Your task to perform on an android device: turn off notifications in google photos Image 0: 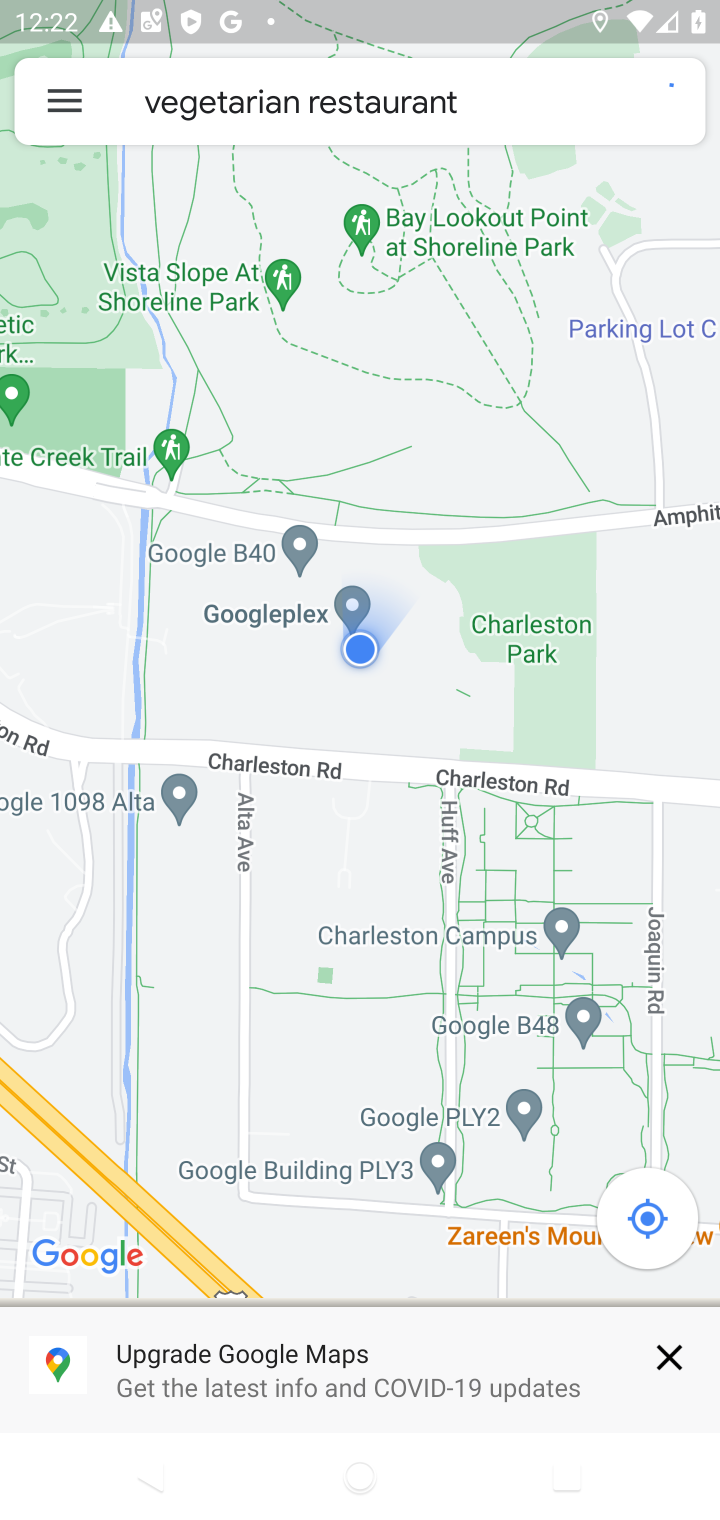
Step 0: press back button
Your task to perform on an android device: turn off notifications in google photos Image 1: 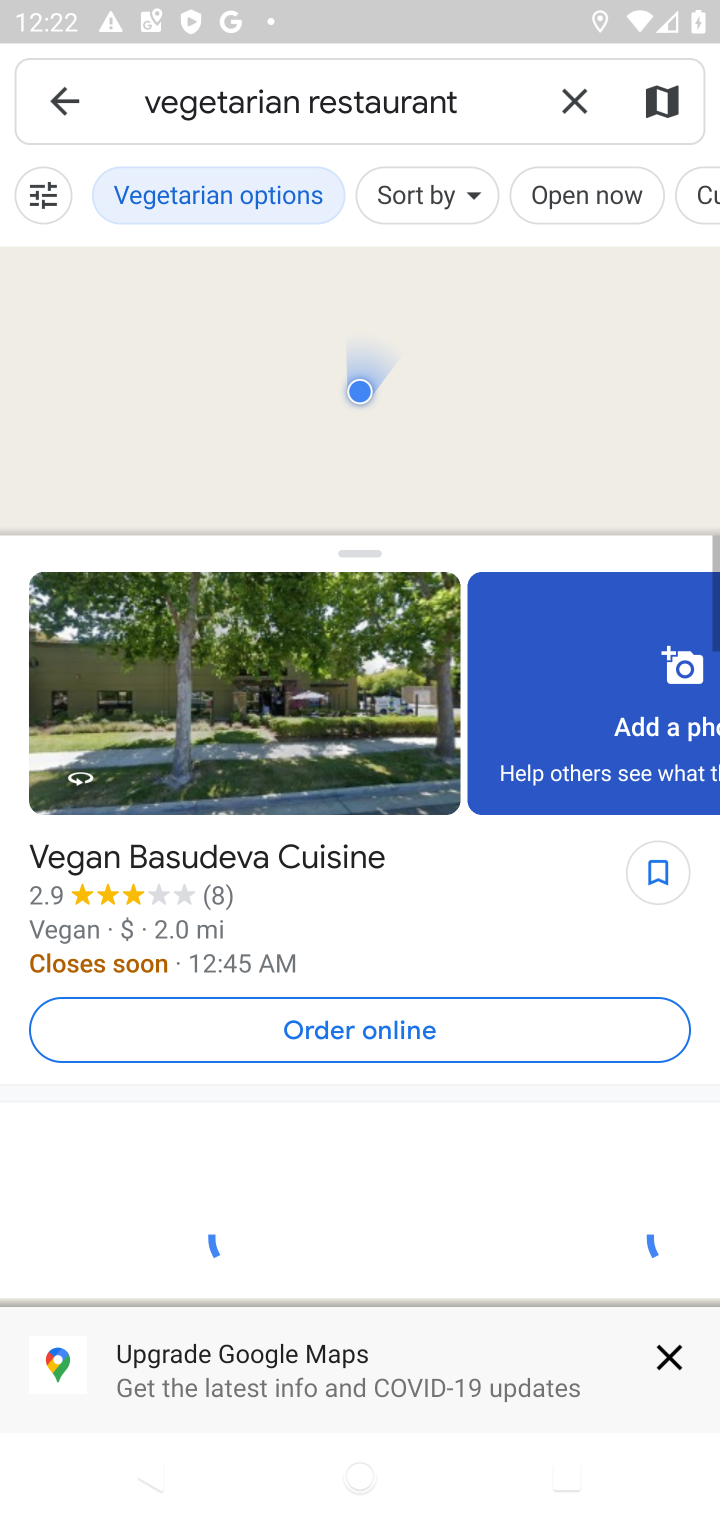
Step 1: click (48, 107)
Your task to perform on an android device: turn off notifications in google photos Image 2: 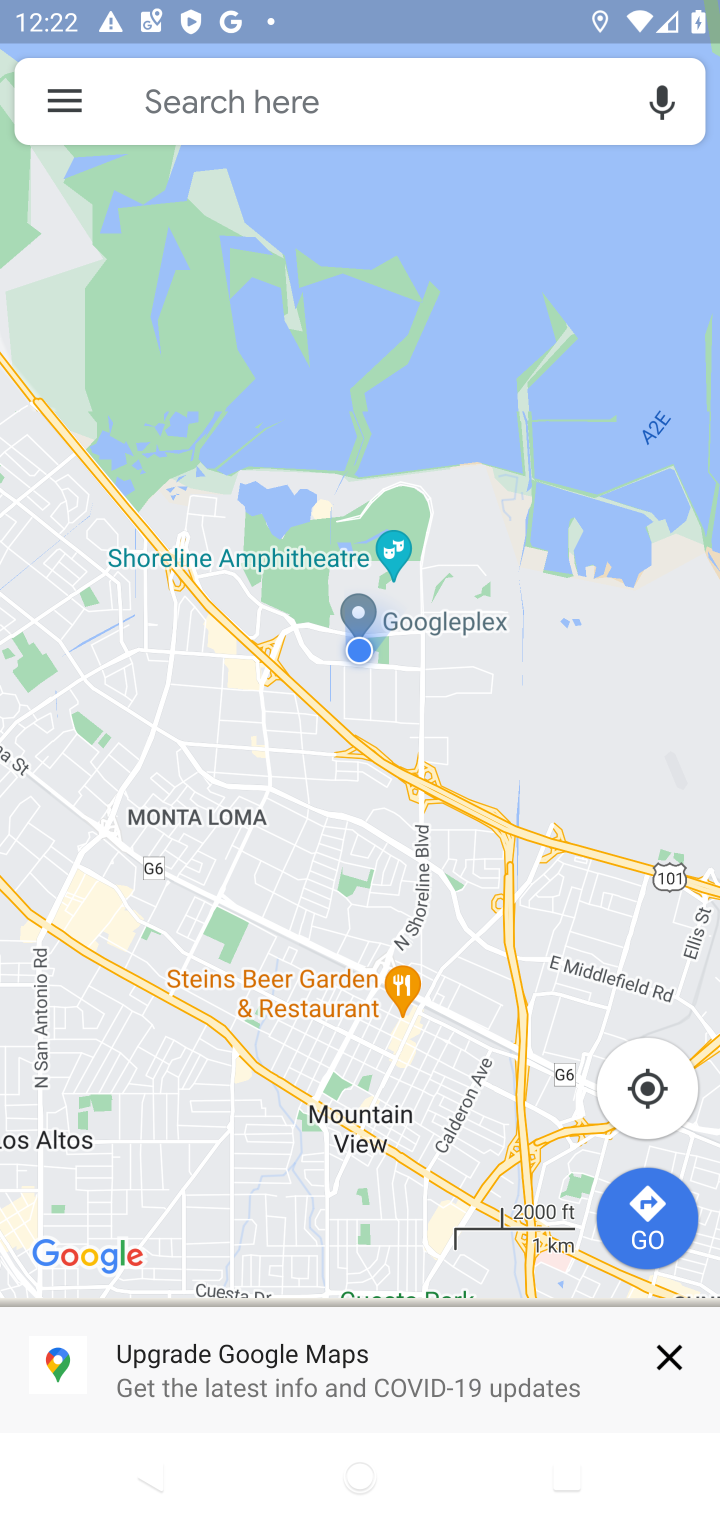
Step 2: click (166, 104)
Your task to perform on an android device: turn off notifications in google photos Image 3: 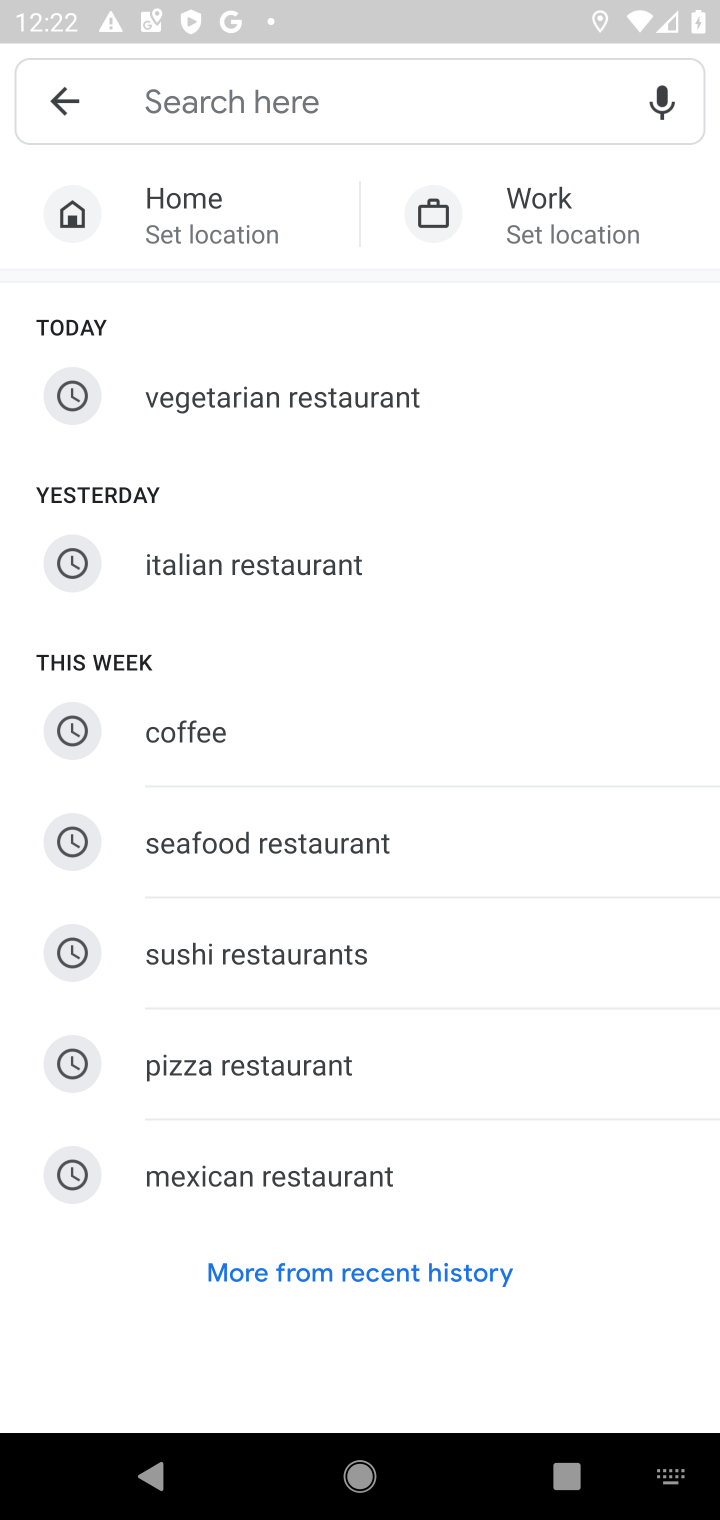
Step 3: press back button
Your task to perform on an android device: turn off notifications in google photos Image 4: 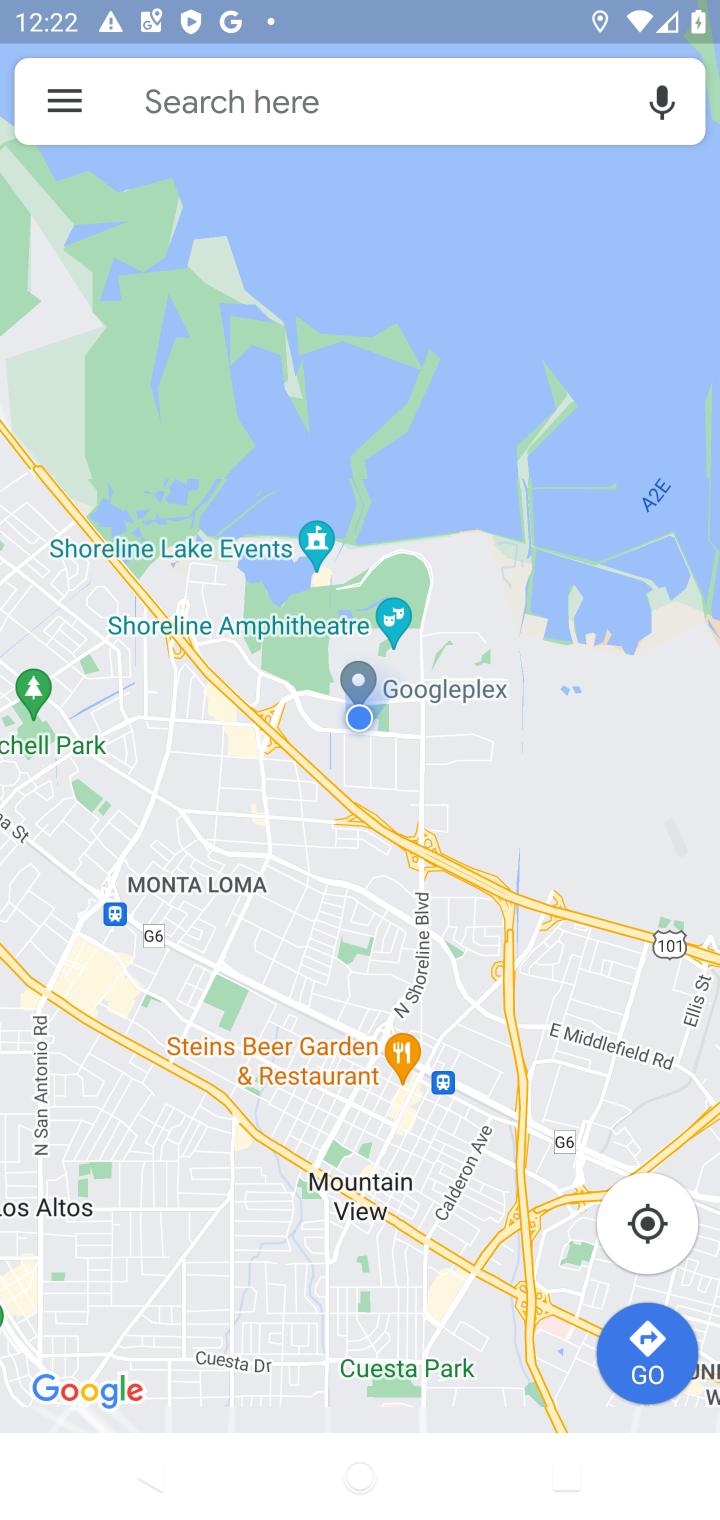
Step 4: click (62, 101)
Your task to perform on an android device: turn off notifications in google photos Image 5: 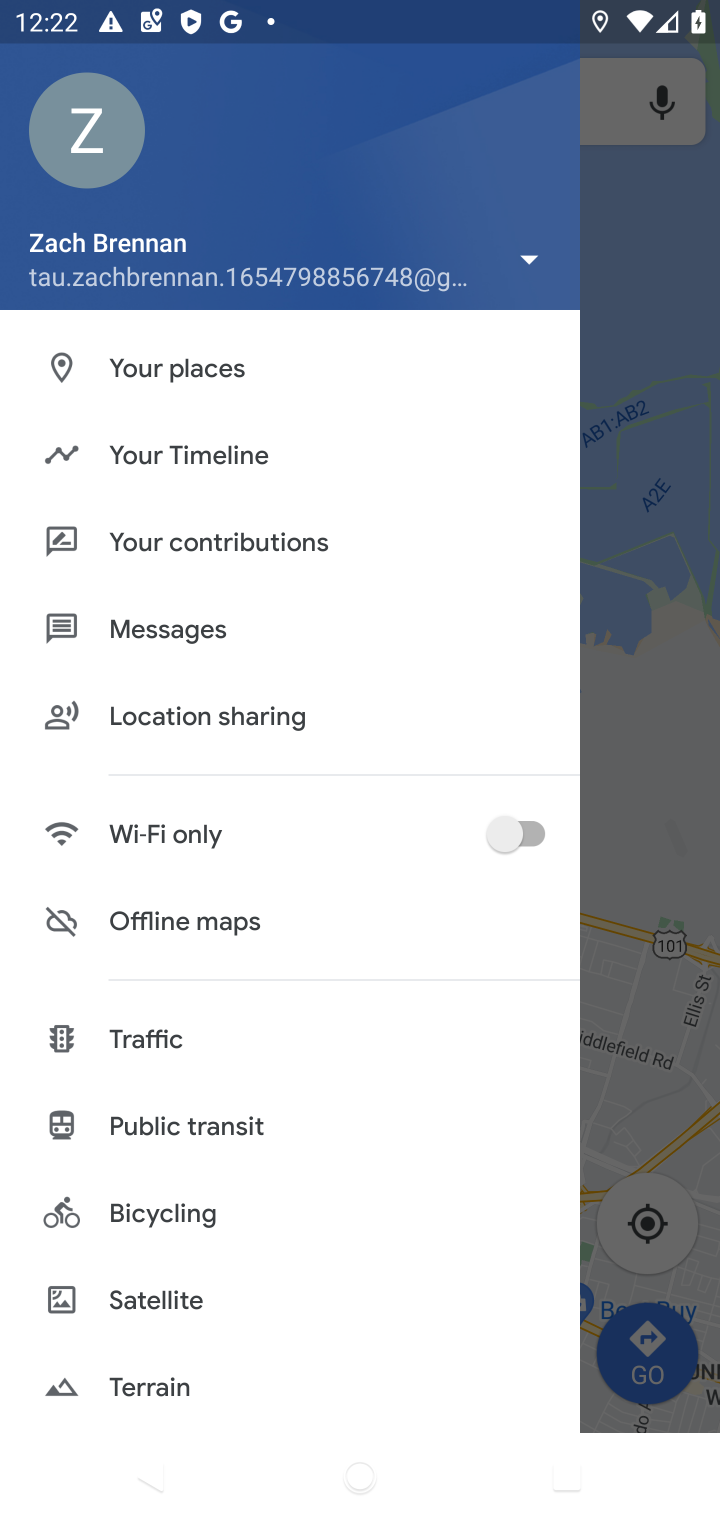
Step 5: drag from (671, 1217) to (641, 127)
Your task to perform on an android device: turn off notifications in google photos Image 6: 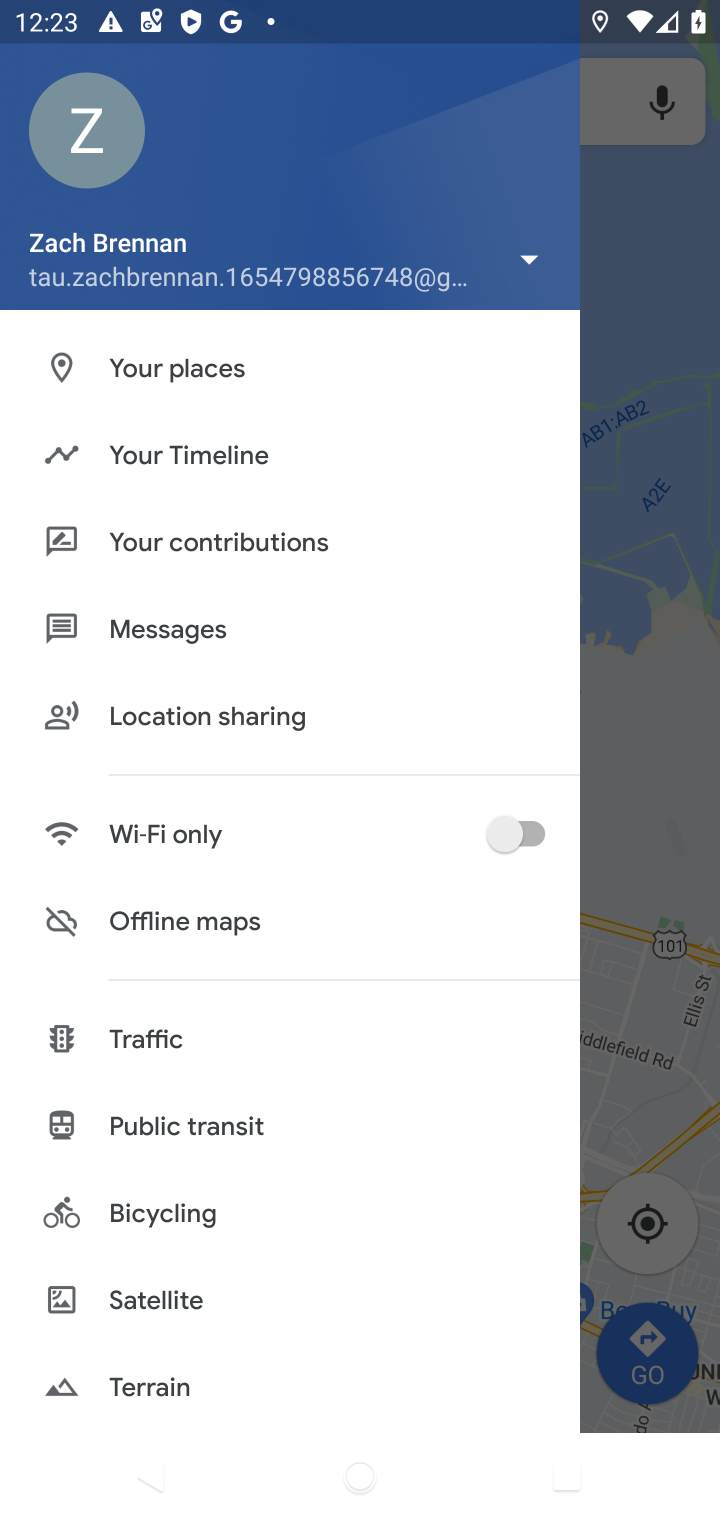
Step 6: press back button
Your task to perform on an android device: turn off notifications in google photos Image 7: 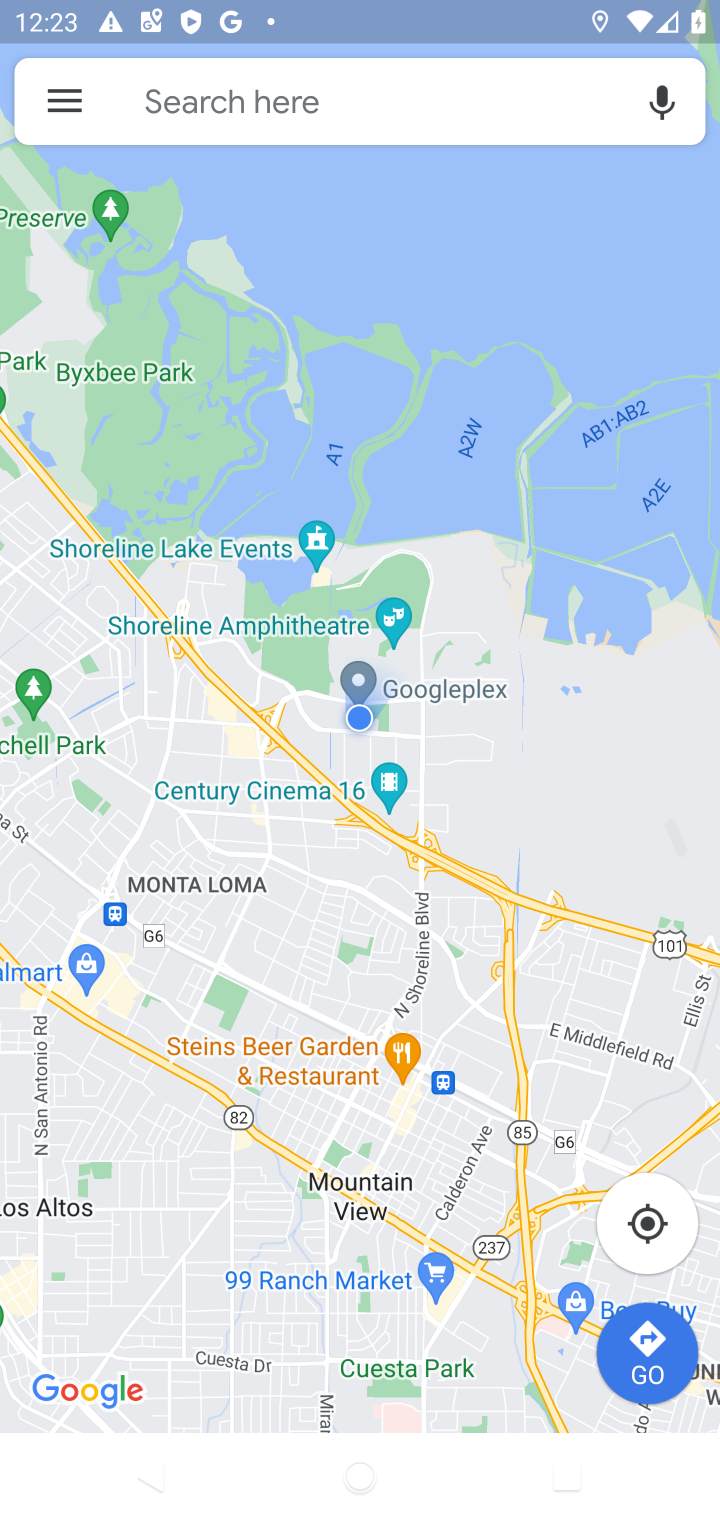
Step 7: press back button
Your task to perform on an android device: turn off notifications in google photos Image 8: 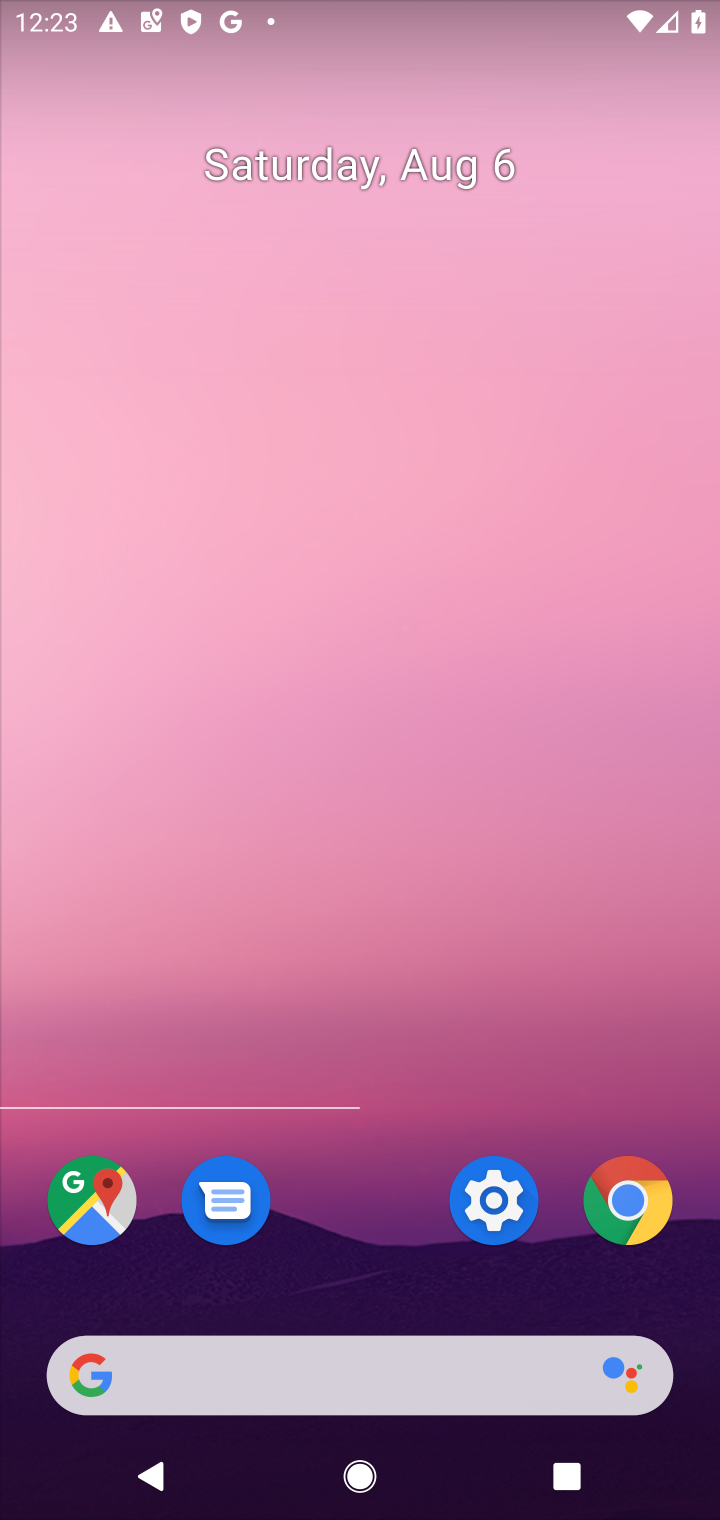
Step 8: drag from (356, 297) to (474, 421)
Your task to perform on an android device: turn off notifications in google photos Image 9: 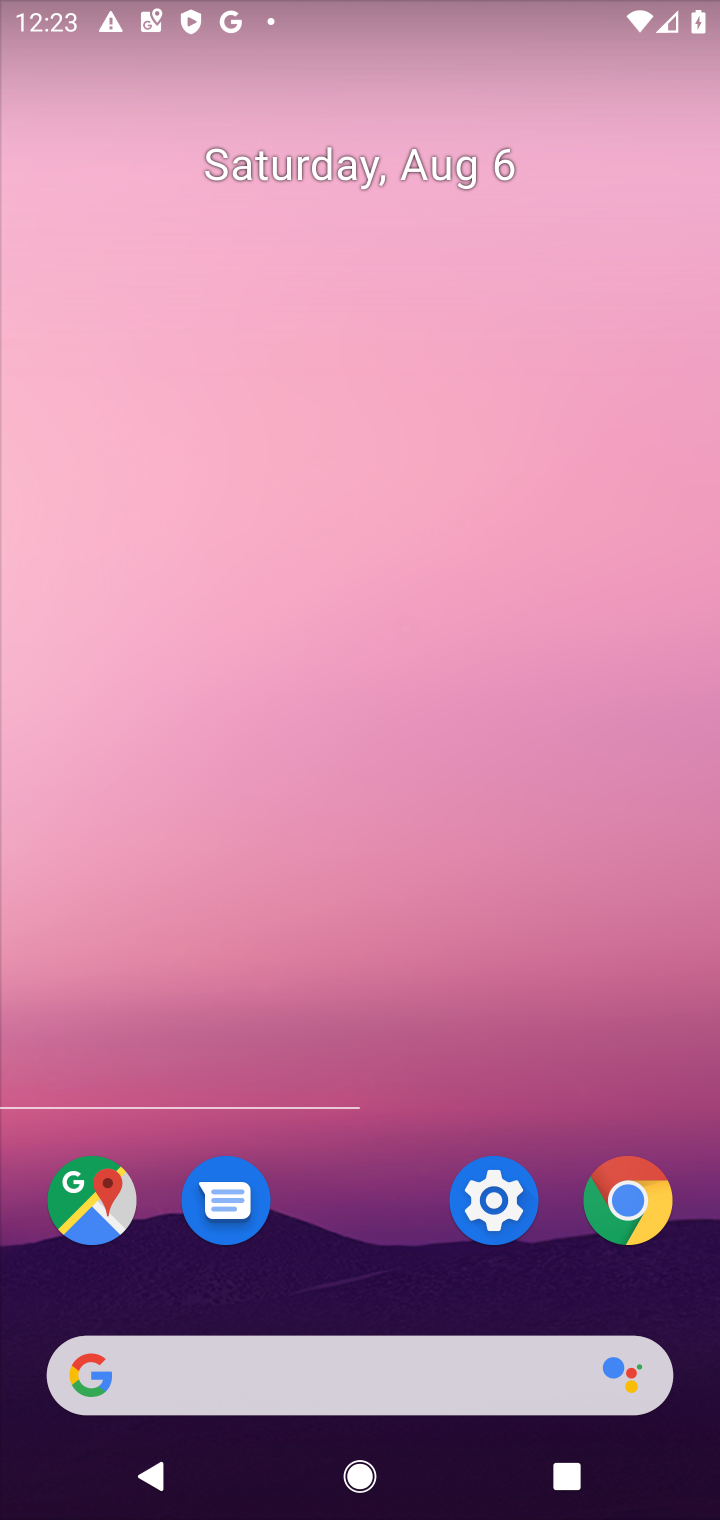
Step 9: drag from (180, 515) to (345, 85)
Your task to perform on an android device: turn off notifications in google photos Image 10: 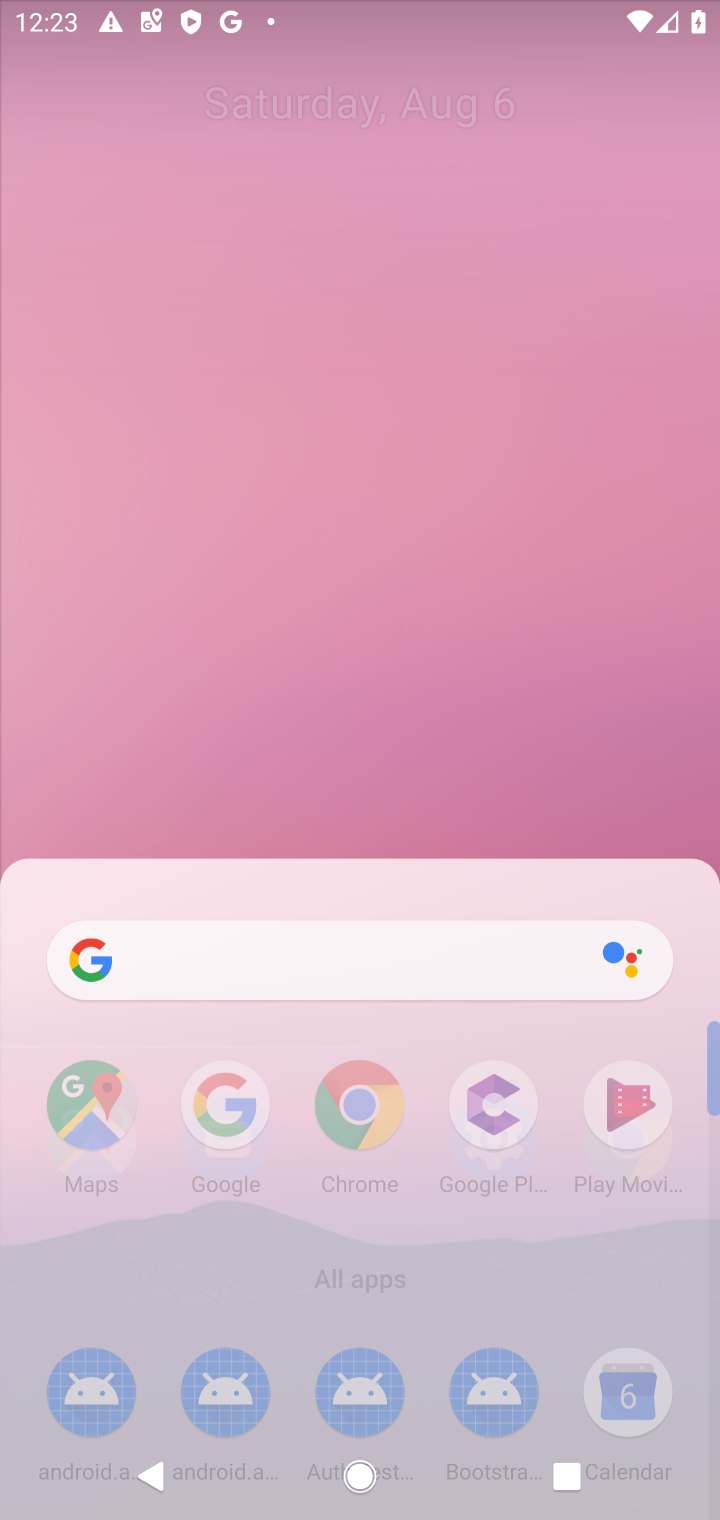
Step 10: click (450, 509)
Your task to perform on an android device: turn off notifications in google photos Image 11: 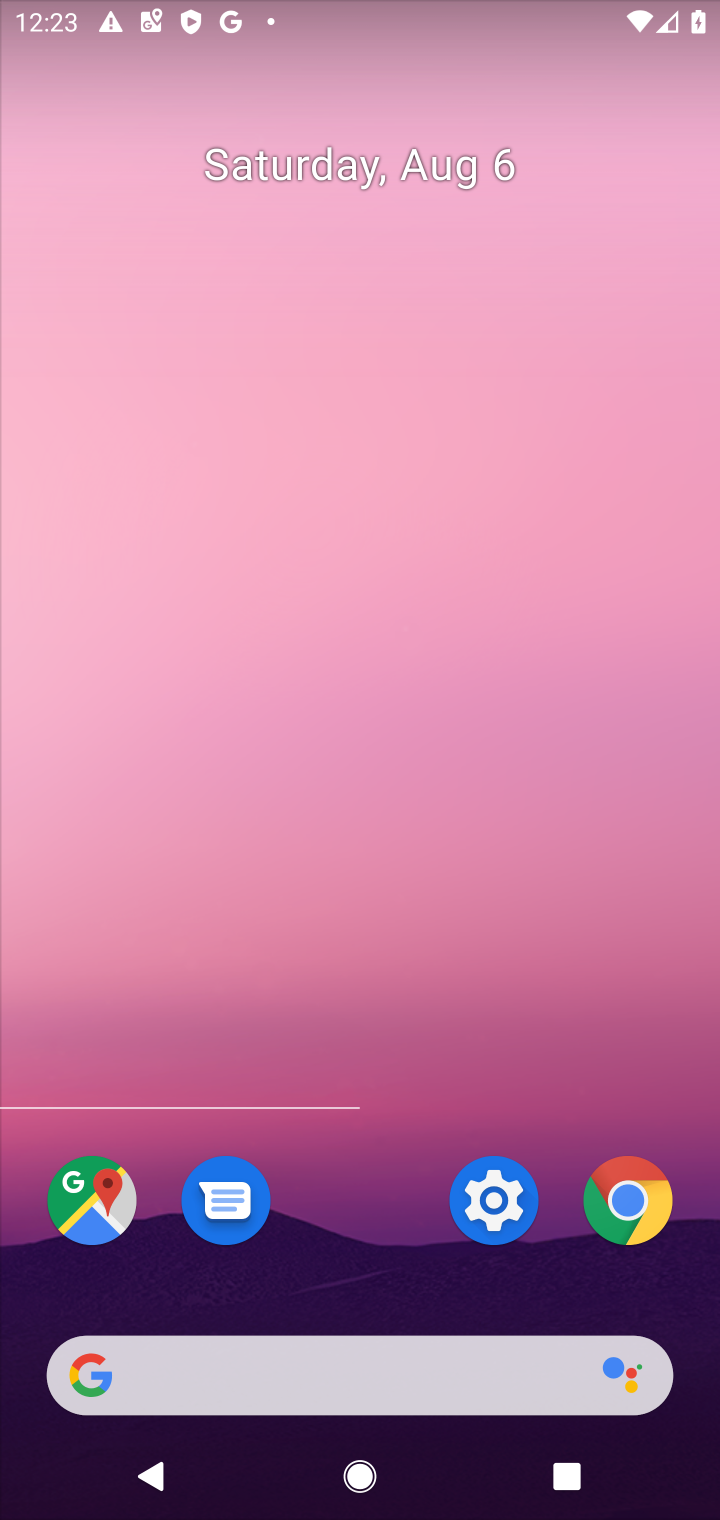
Step 11: drag from (455, 859) to (496, 356)
Your task to perform on an android device: turn off notifications in google photos Image 12: 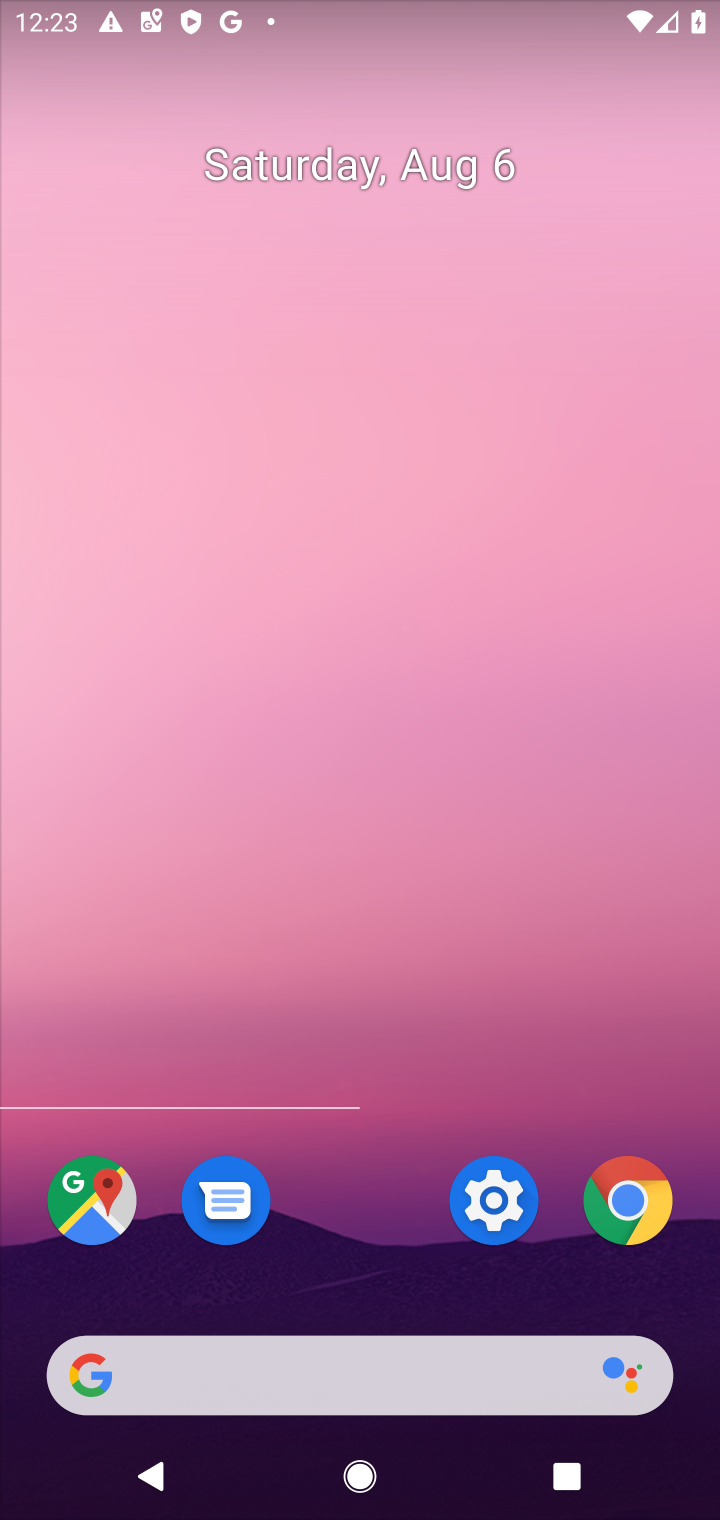
Step 12: drag from (432, 1031) to (238, 194)
Your task to perform on an android device: turn off notifications in google photos Image 13: 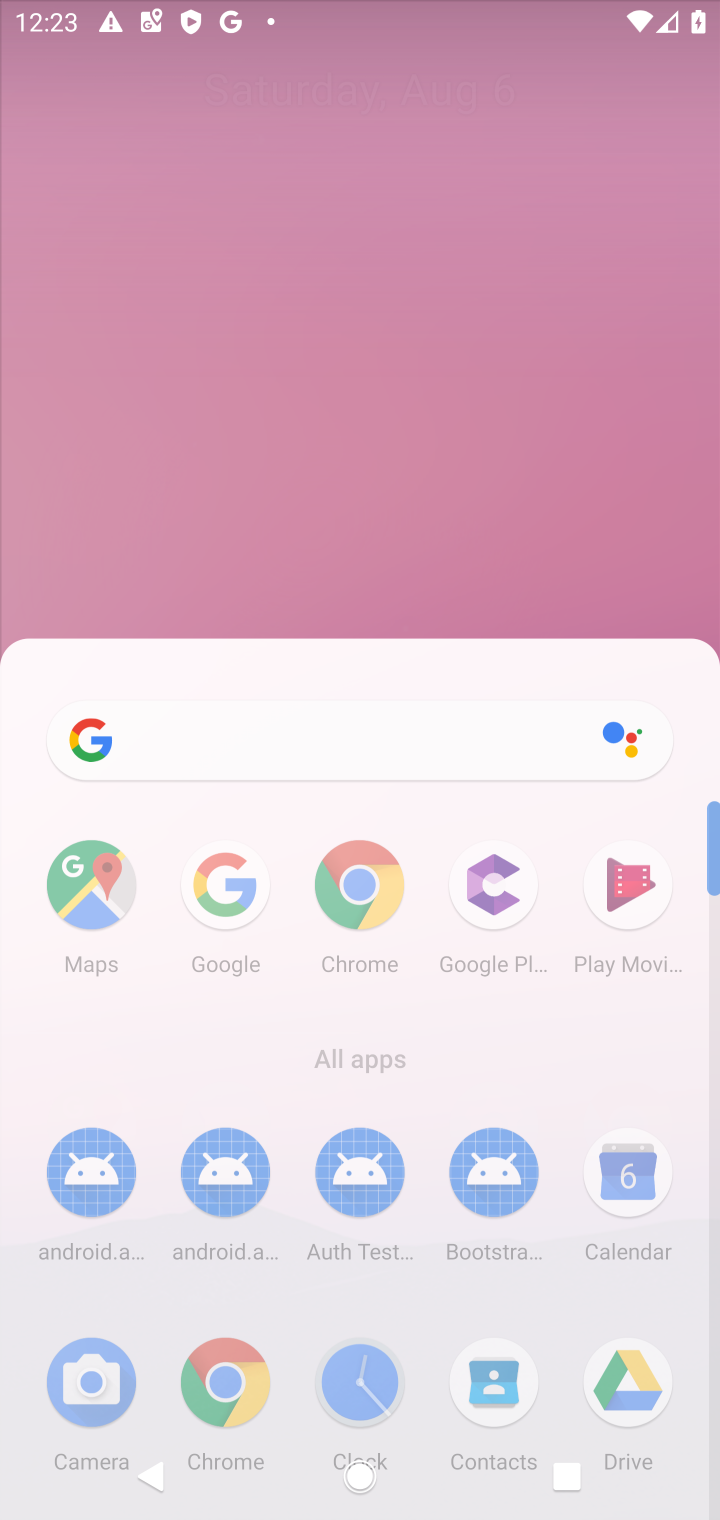
Step 13: click (306, 513)
Your task to perform on an android device: turn off notifications in google photos Image 14: 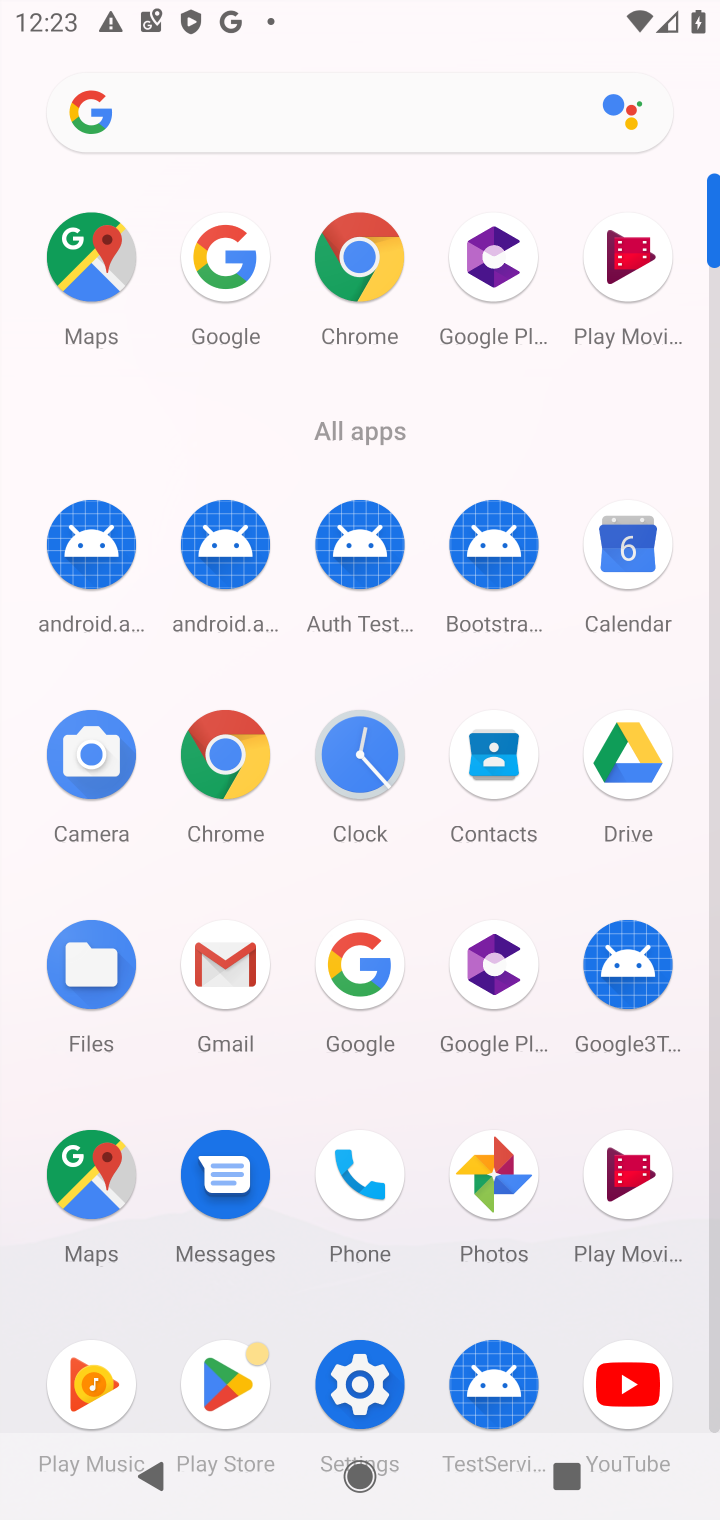
Step 14: click (496, 1196)
Your task to perform on an android device: turn off notifications in google photos Image 15: 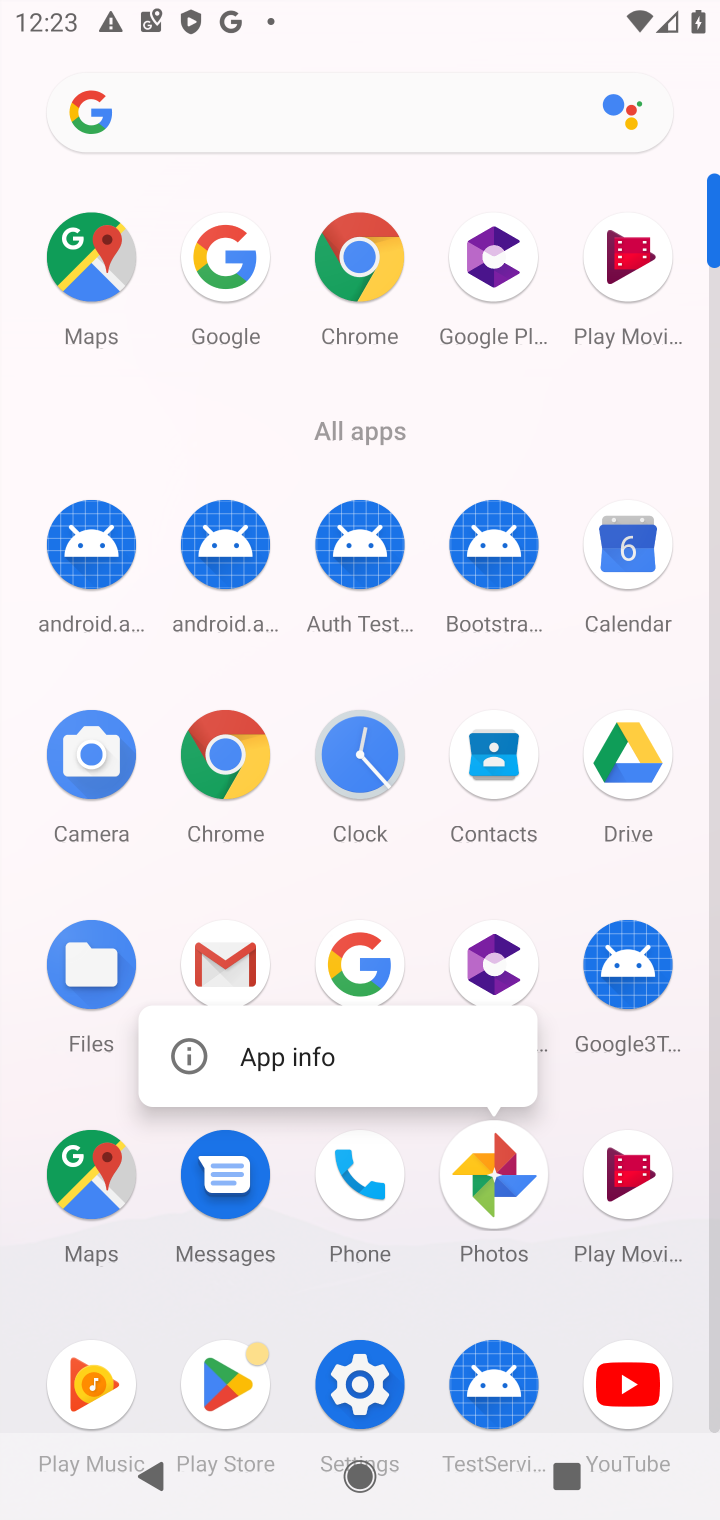
Step 15: click (496, 1194)
Your task to perform on an android device: turn off notifications in google photos Image 16: 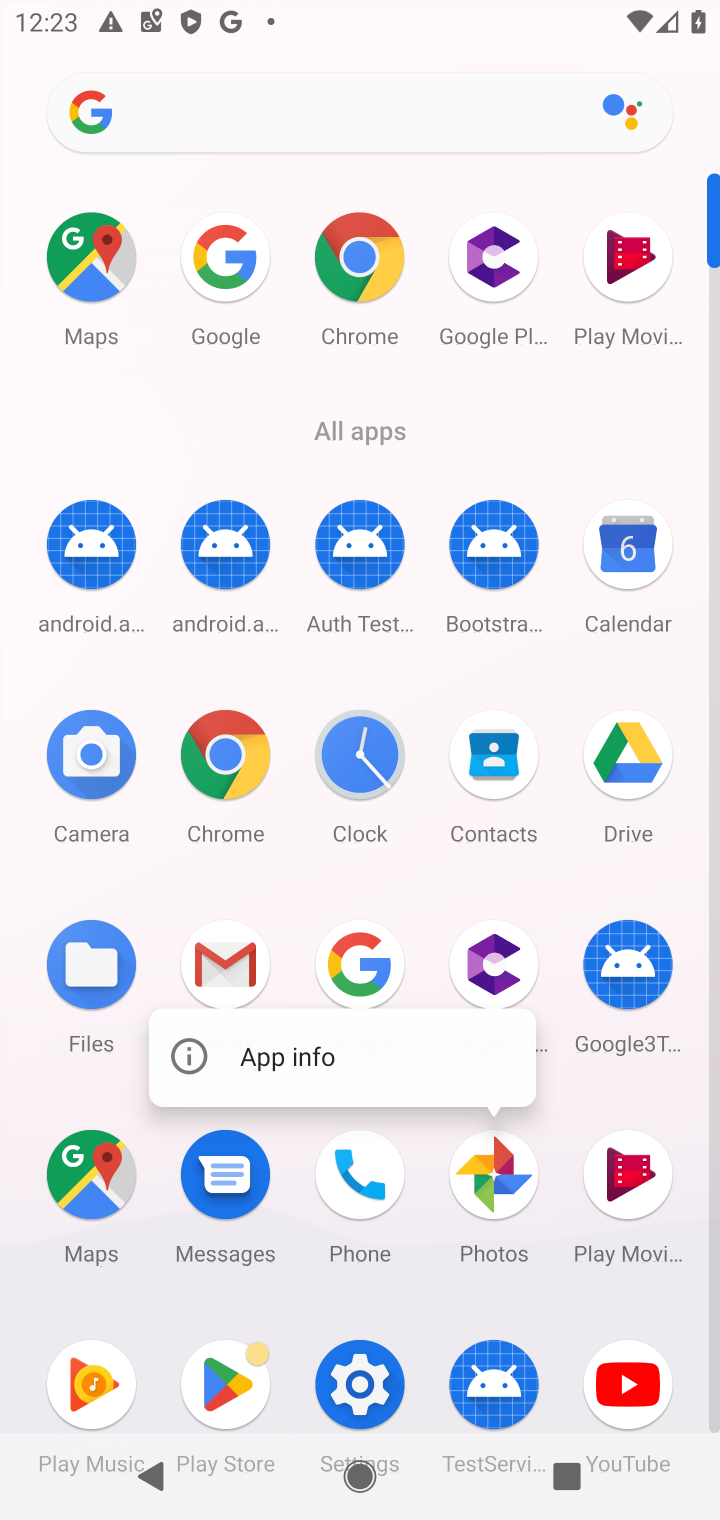
Step 16: click (496, 1194)
Your task to perform on an android device: turn off notifications in google photos Image 17: 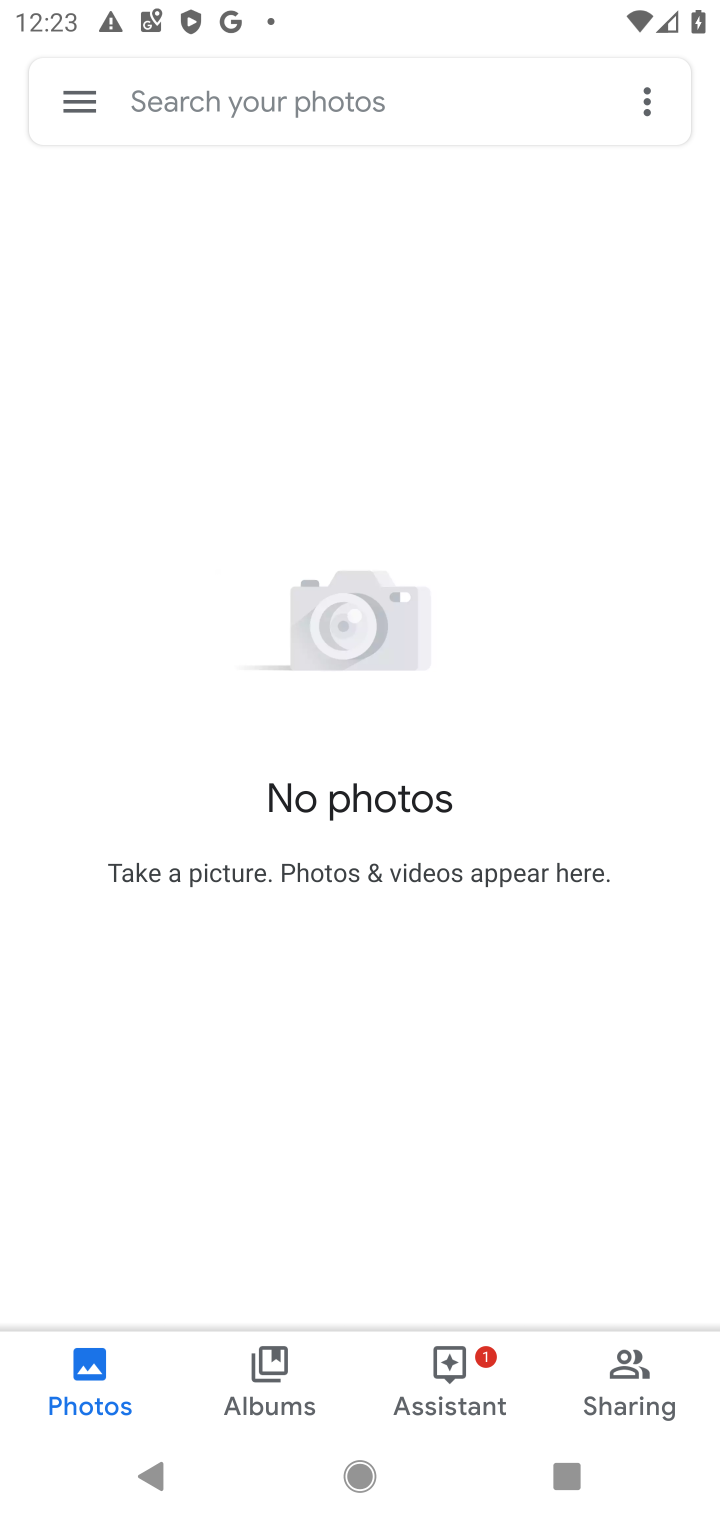
Step 17: click (61, 107)
Your task to perform on an android device: turn off notifications in google photos Image 18: 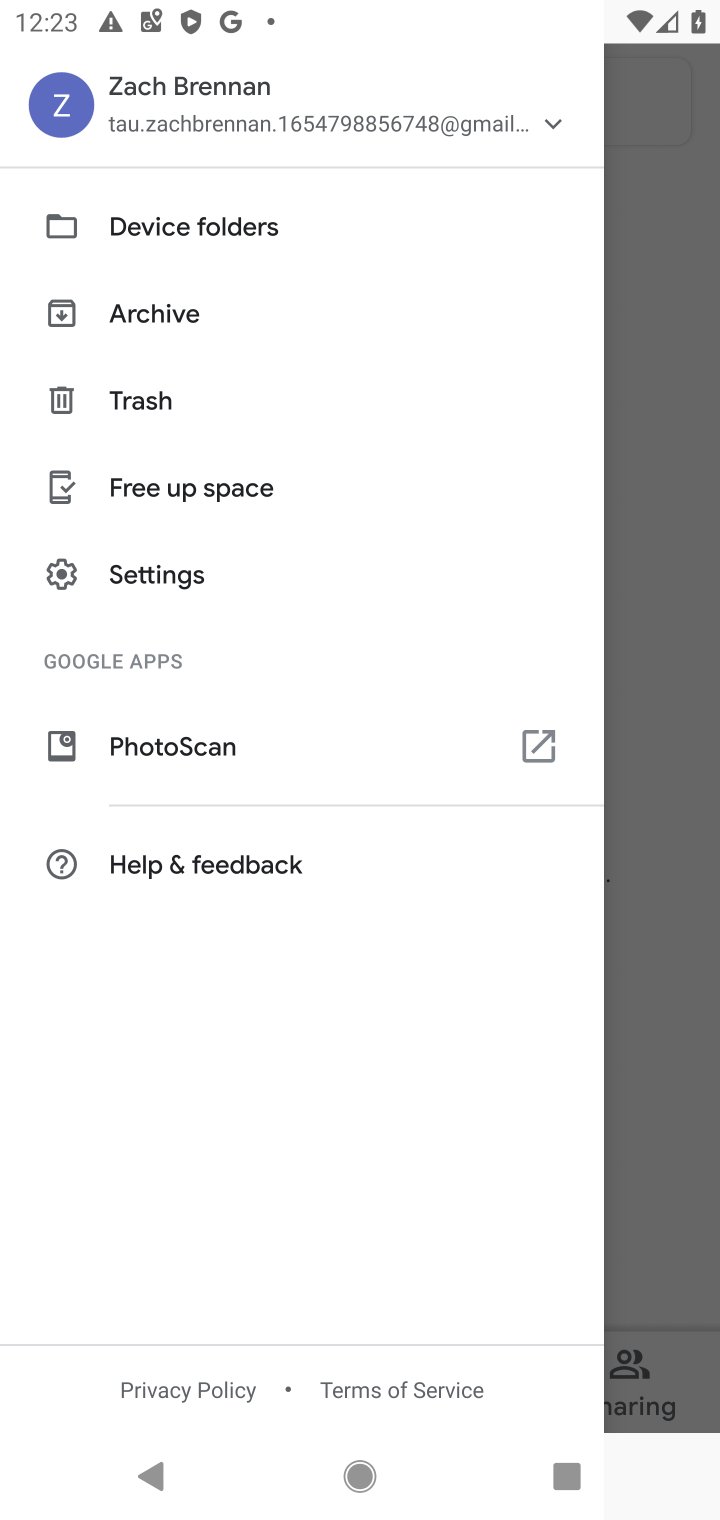
Step 18: click (138, 563)
Your task to perform on an android device: turn off notifications in google photos Image 19: 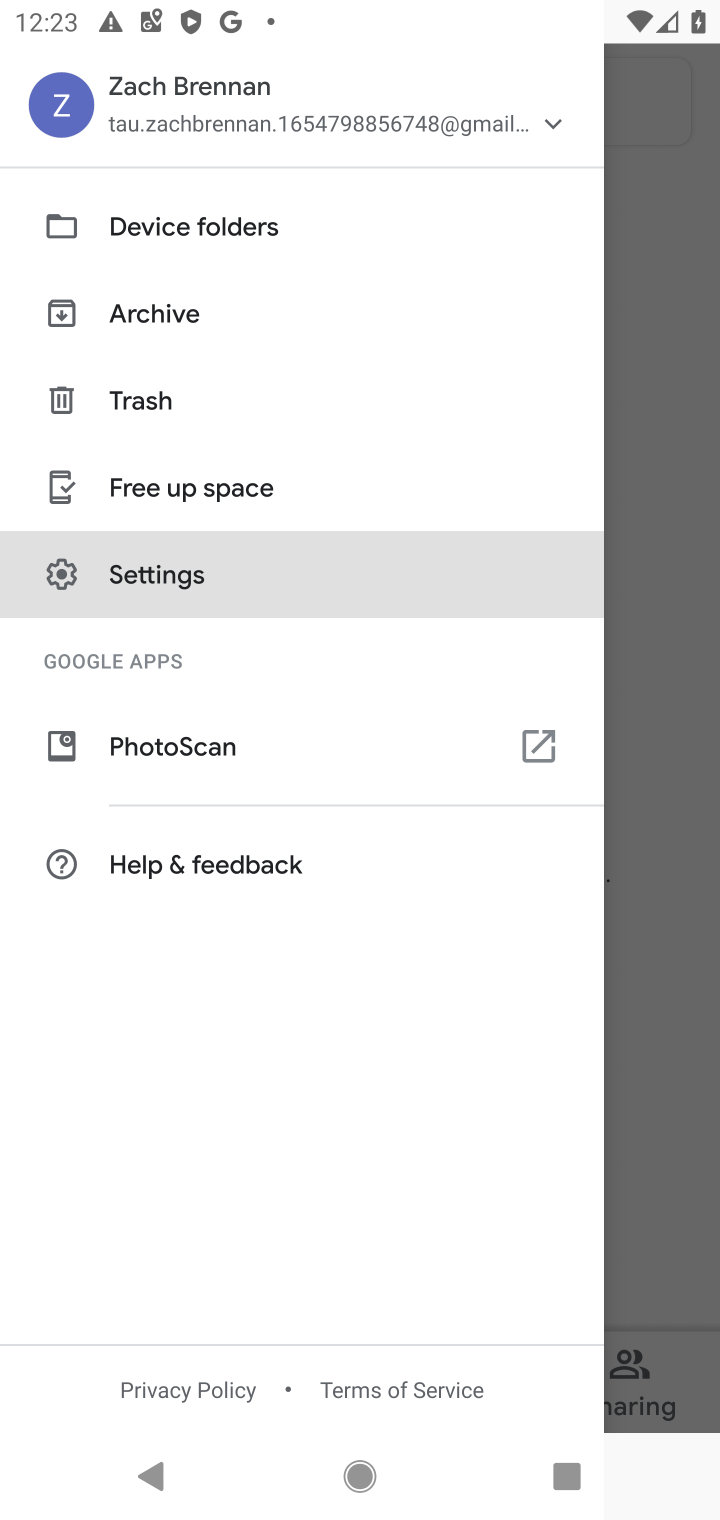
Step 19: click (138, 563)
Your task to perform on an android device: turn off notifications in google photos Image 20: 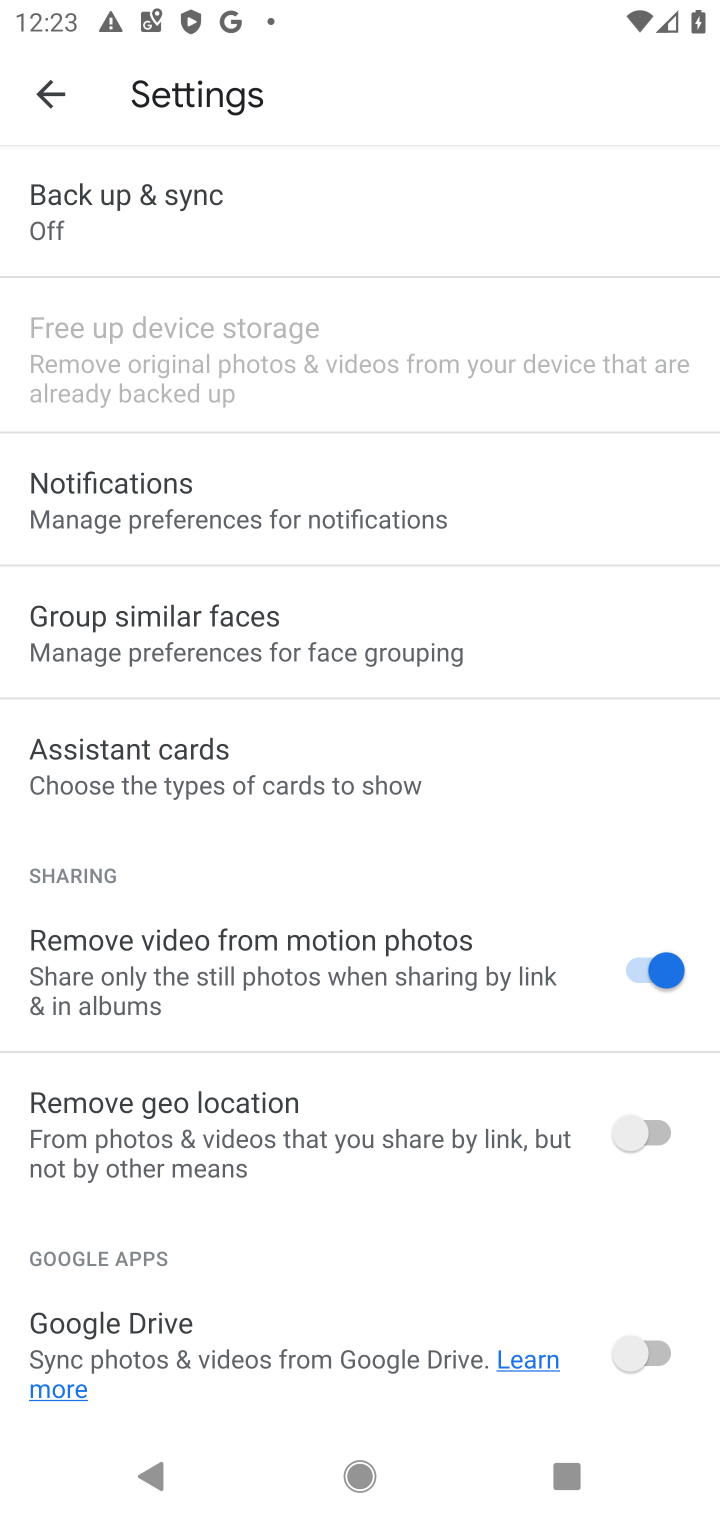
Step 20: click (135, 516)
Your task to perform on an android device: turn off notifications in google photos Image 21: 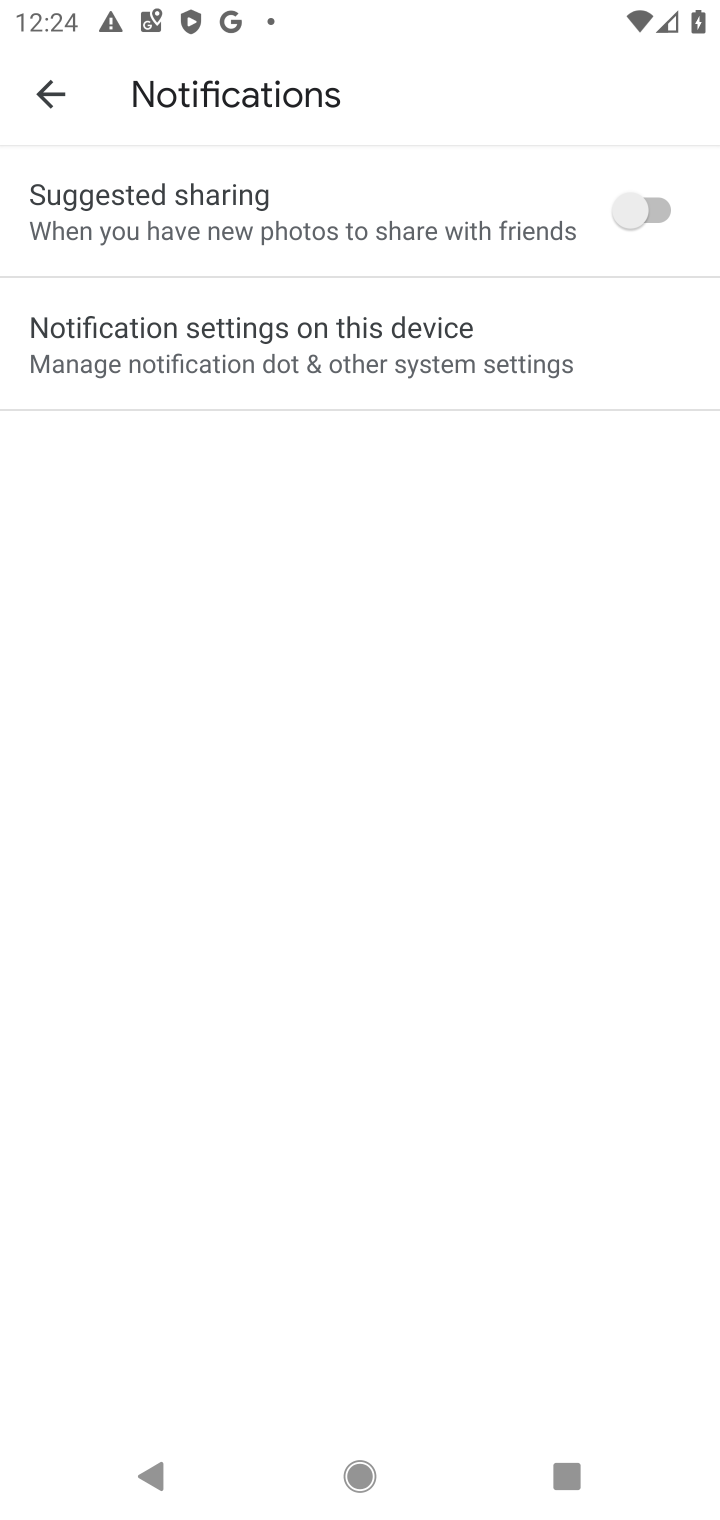
Step 21: click (279, 351)
Your task to perform on an android device: turn off notifications in google photos Image 22: 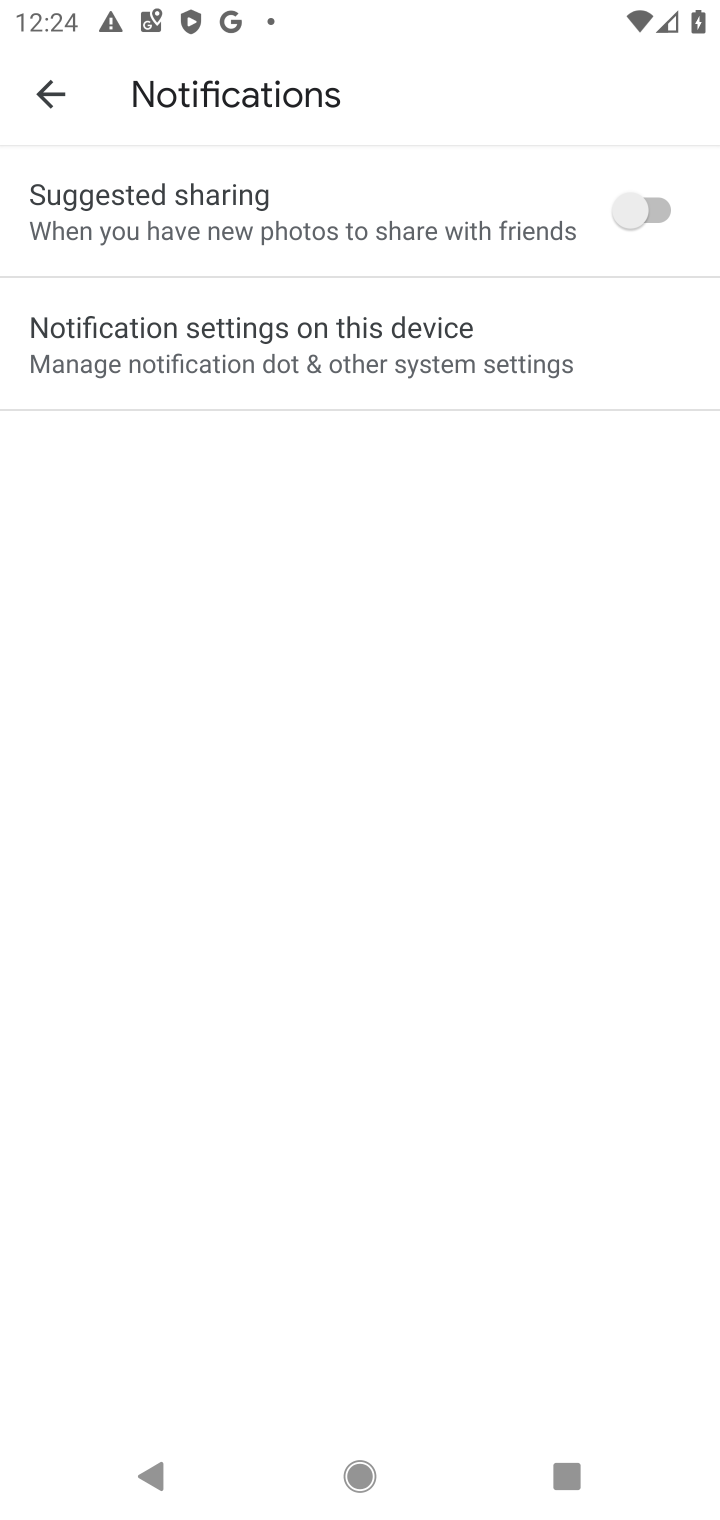
Step 22: click (456, 355)
Your task to perform on an android device: turn off notifications in google photos Image 23: 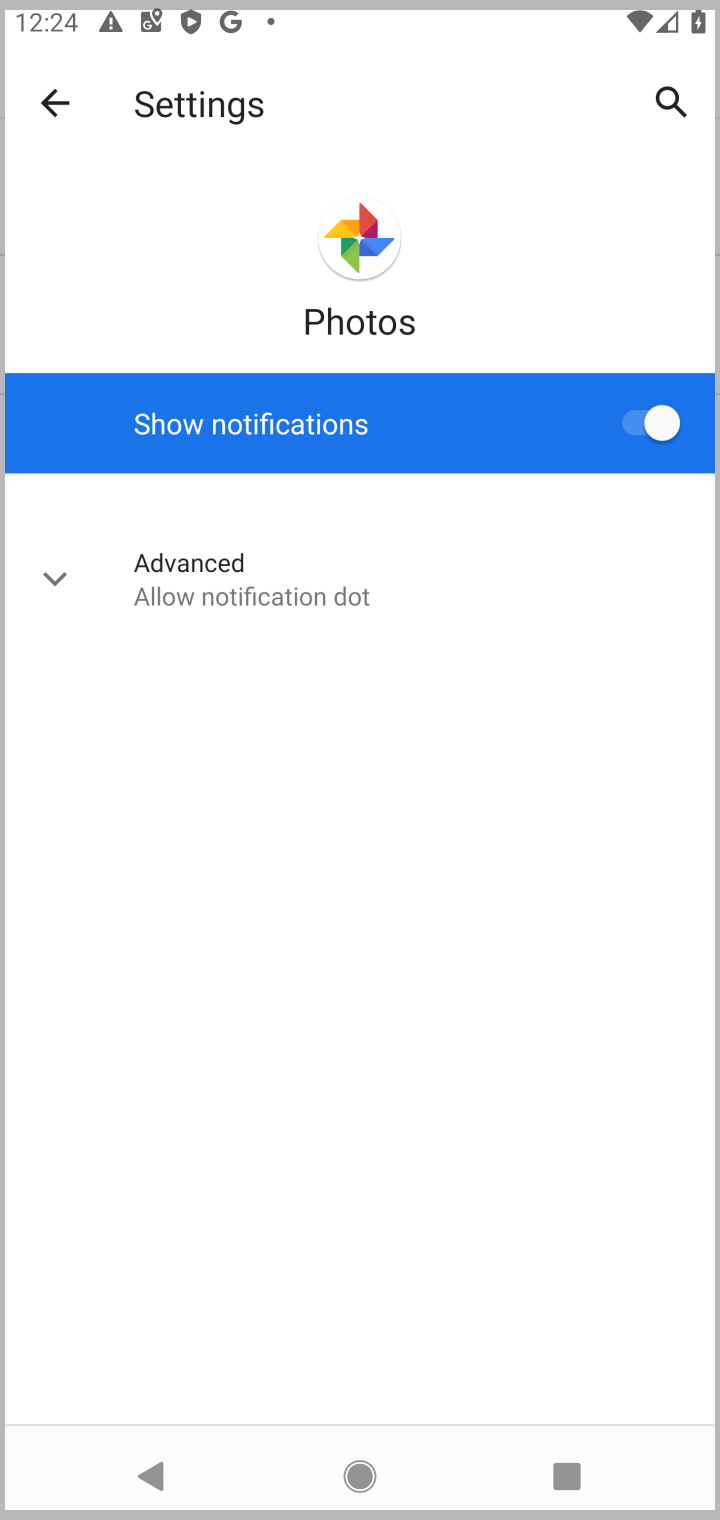
Step 23: drag from (407, 325) to (305, 325)
Your task to perform on an android device: turn off notifications in google photos Image 24: 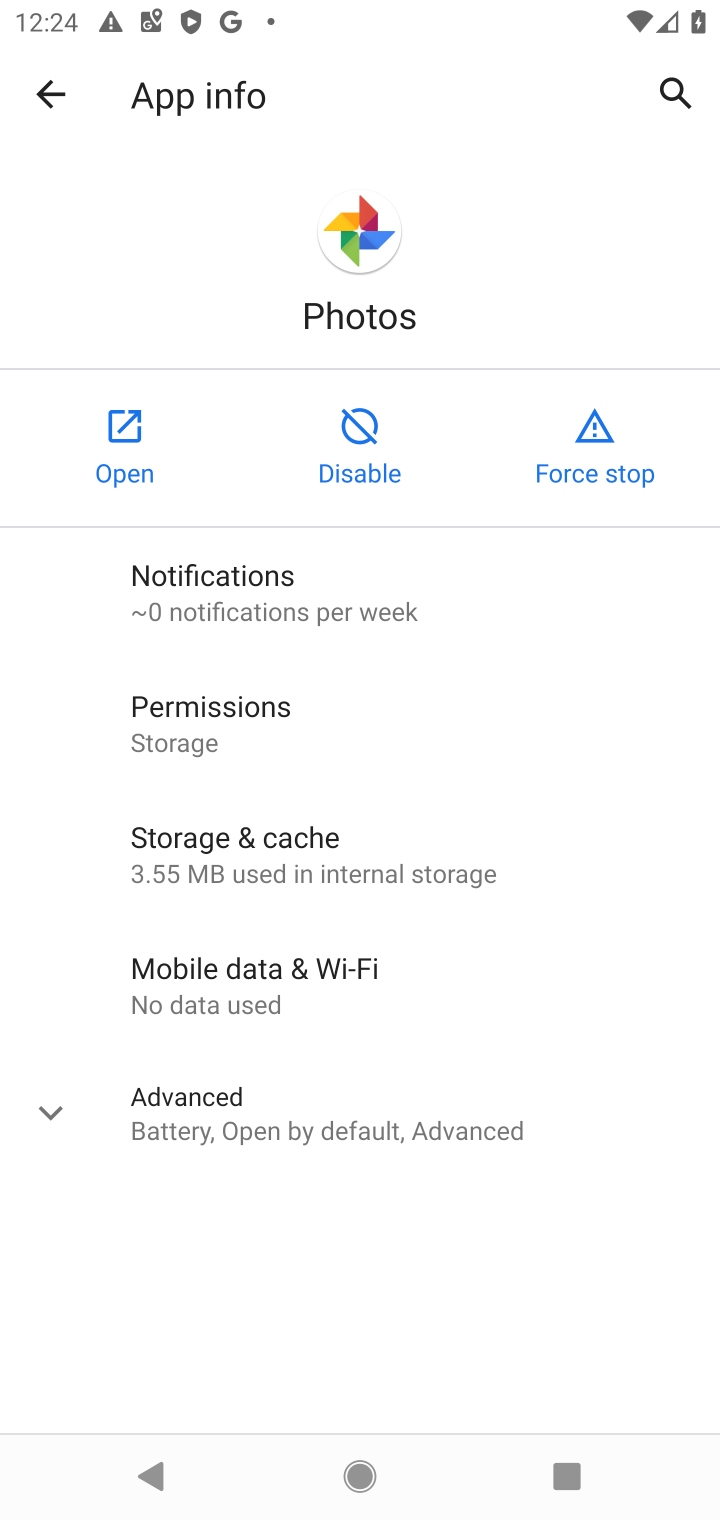
Step 24: click (674, 411)
Your task to perform on an android device: turn off notifications in google photos Image 25: 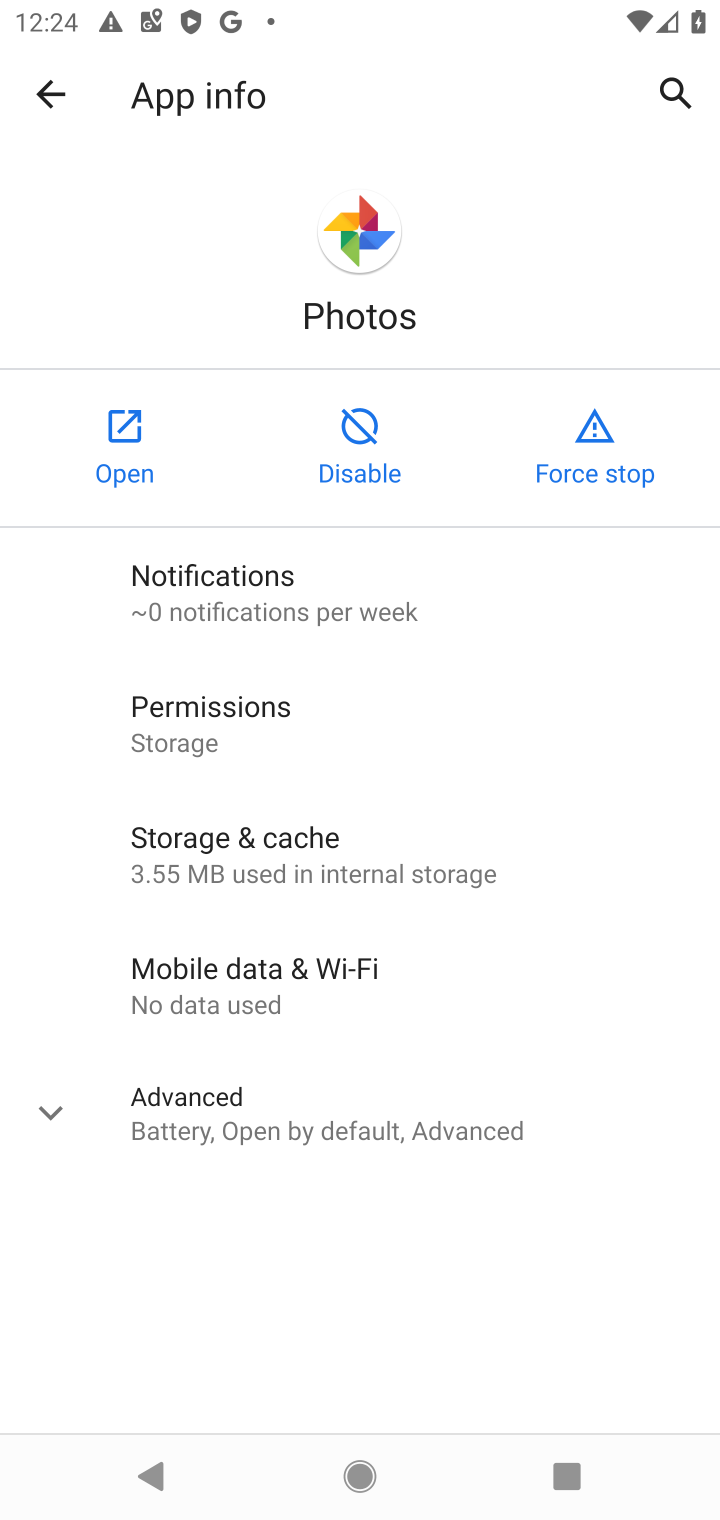
Step 25: task complete